Your task to perform on an android device: turn off translation in the chrome app Image 0: 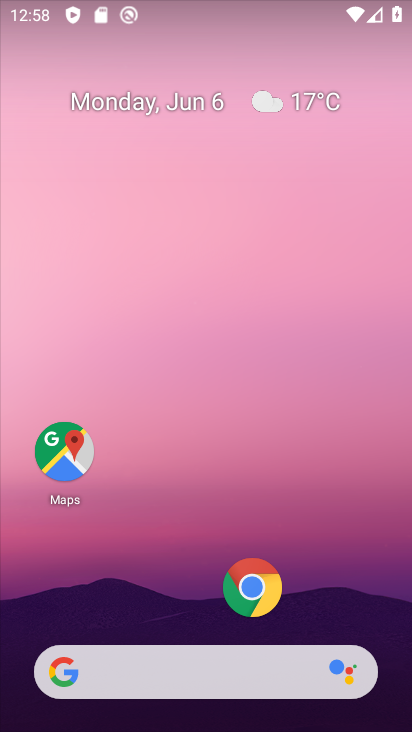
Step 0: click (219, 581)
Your task to perform on an android device: turn off translation in the chrome app Image 1: 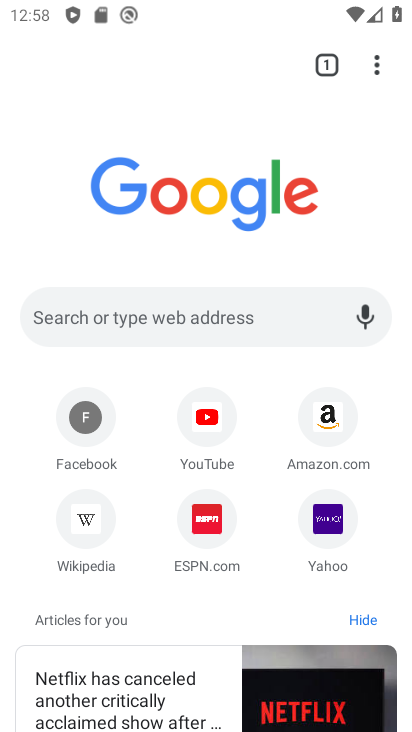
Step 1: click (383, 73)
Your task to perform on an android device: turn off translation in the chrome app Image 2: 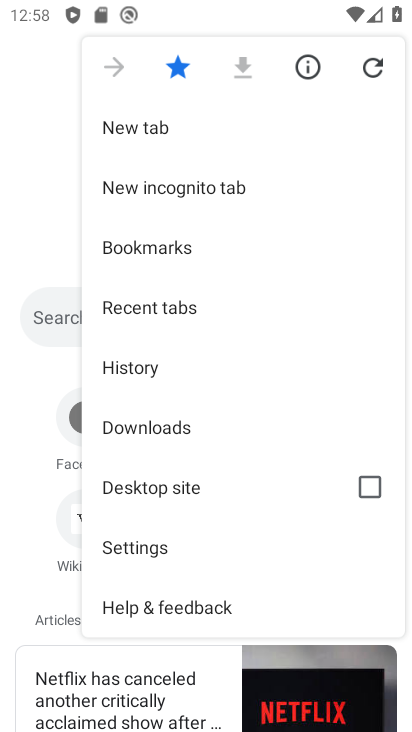
Step 2: drag from (208, 495) to (220, 259)
Your task to perform on an android device: turn off translation in the chrome app Image 3: 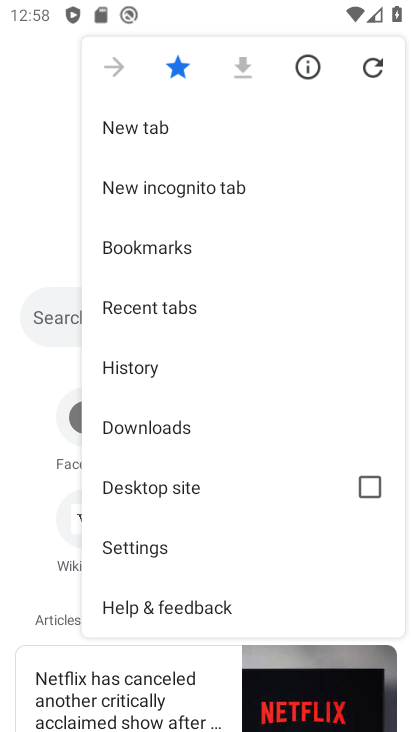
Step 3: click (170, 544)
Your task to perform on an android device: turn off translation in the chrome app Image 4: 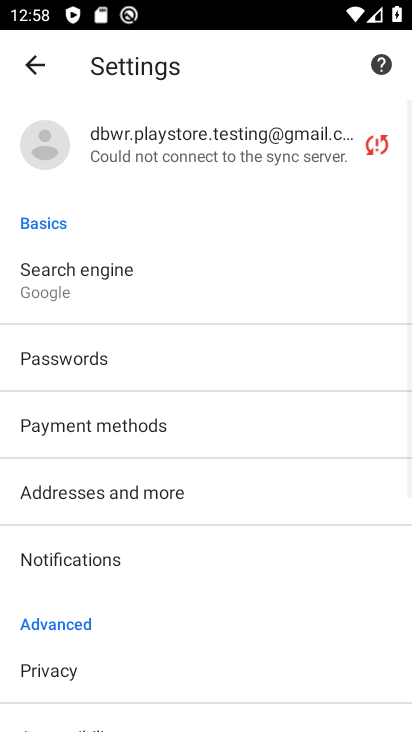
Step 4: drag from (94, 595) to (156, 183)
Your task to perform on an android device: turn off translation in the chrome app Image 5: 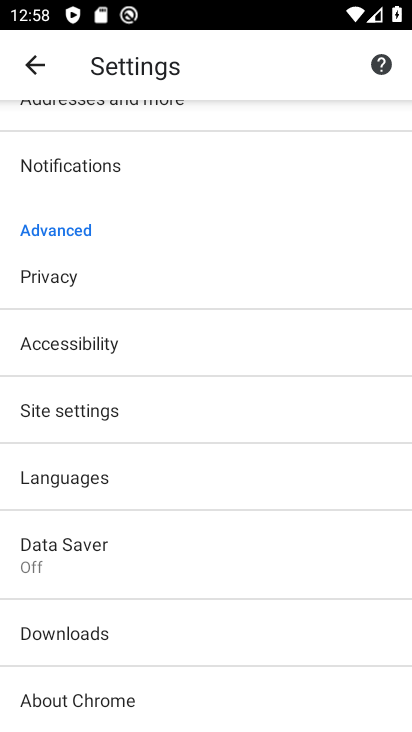
Step 5: click (97, 490)
Your task to perform on an android device: turn off translation in the chrome app Image 6: 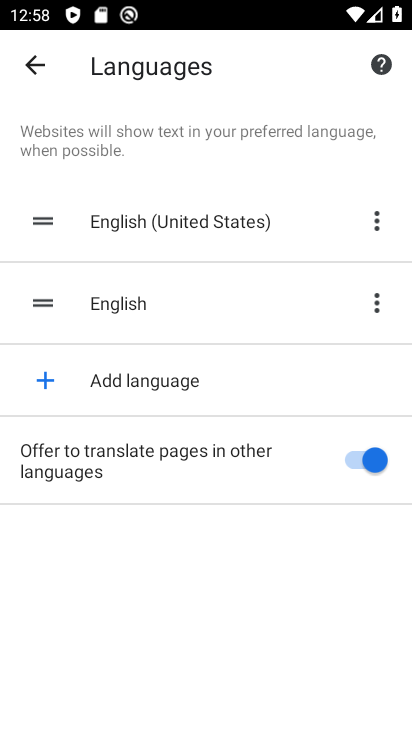
Step 6: click (341, 468)
Your task to perform on an android device: turn off translation in the chrome app Image 7: 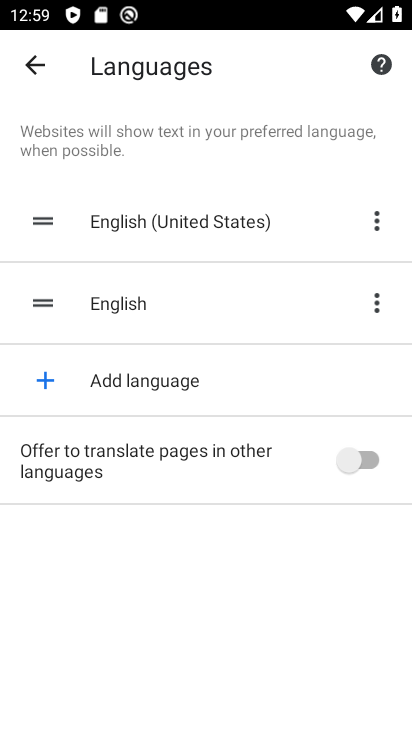
Step 7: task complete